Your task to perform on an android device: Open calendar and show me the fourth week of next month Image 0: 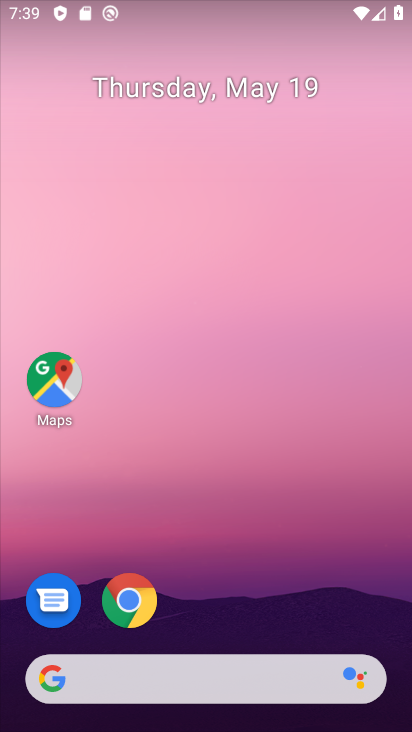
Step 0: drag from (345, 596) to (347, 152)
Your task to perform on an android device: Open calendar and show me the fourth week of next month Image 1: 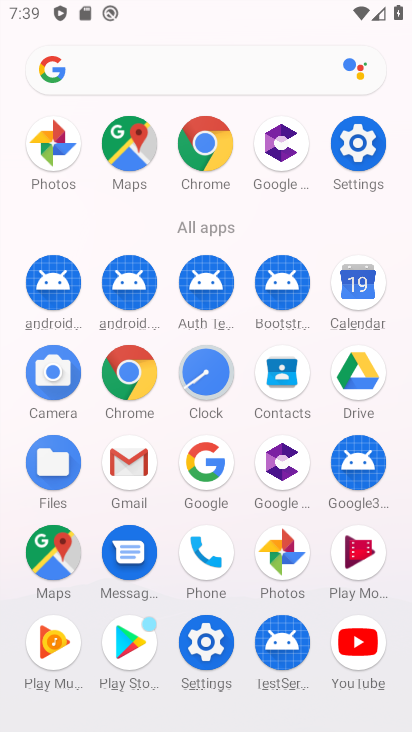
Step 1: click (351, 296)
Your task to perform on an android device: Open calendar and show me the fourth week of next month Image 2: 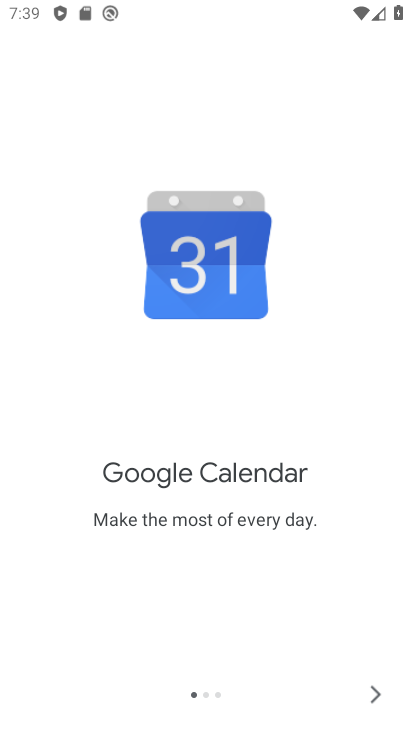
Step 2: click (373, 705)
Your task to perform on an android device: Open calendar and show me the fourth week of next month Image 3: 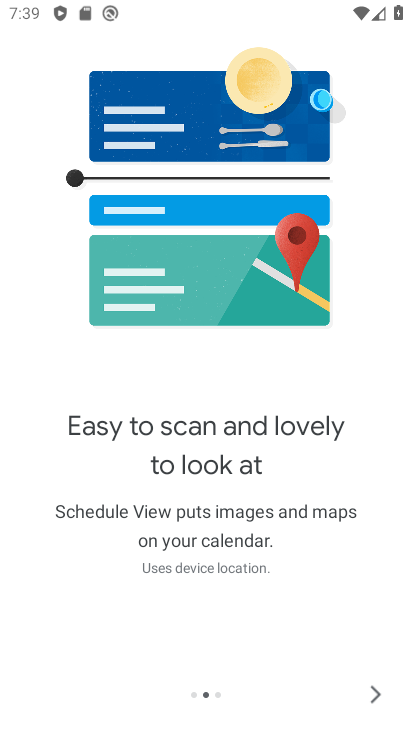
Step 3: click (373, 705)
Your task to perform on an android device: Open calendar and show me the fourth week of next month Image 4: 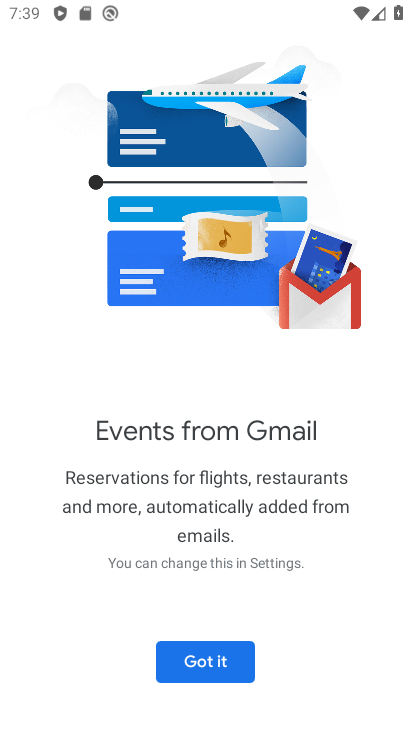
Step 4: click (204, 672)
Your task to perform on an android device: Open calendar and show me the fourth week of next month Image 5: 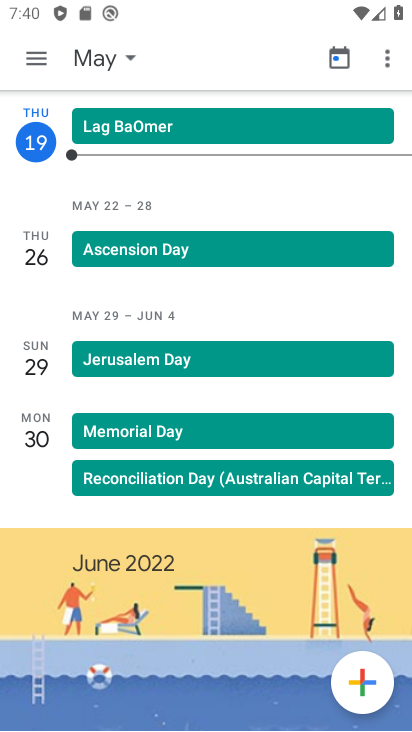
Step 5: click (133, 64)
Your task to perform on an android device: Open calendar and show me the fourth week of next month Image 6: 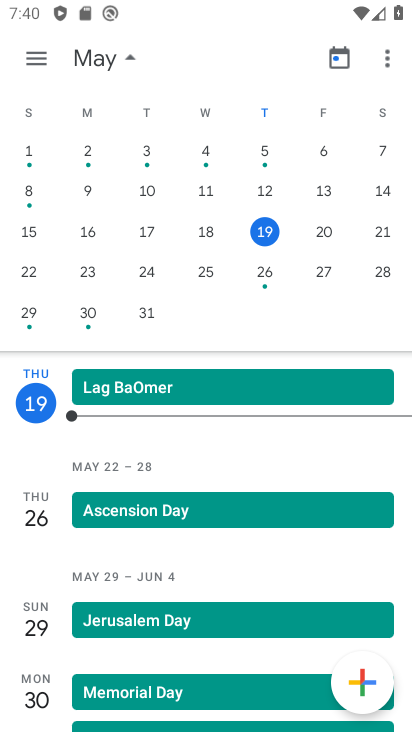
Step 6: drag from (390, 130) to (19, 132)
Your task to perform on an android device: Open calendar and show me the fourth week of next month Image 7: 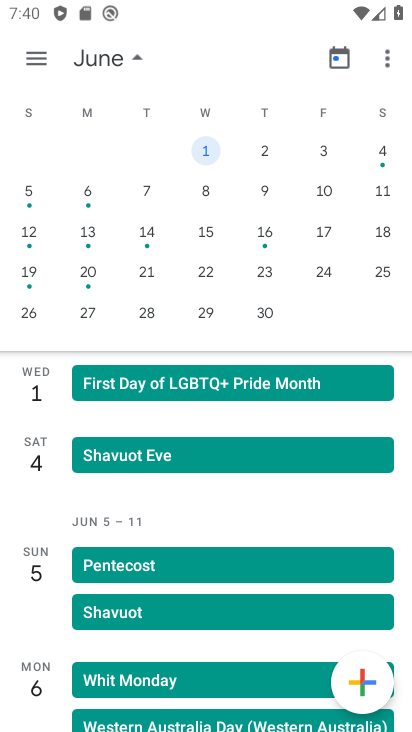
Step 7: click (90, 271)
Your task to perform on an android device: Open calendar and show me the fourth week of next month Image 8: 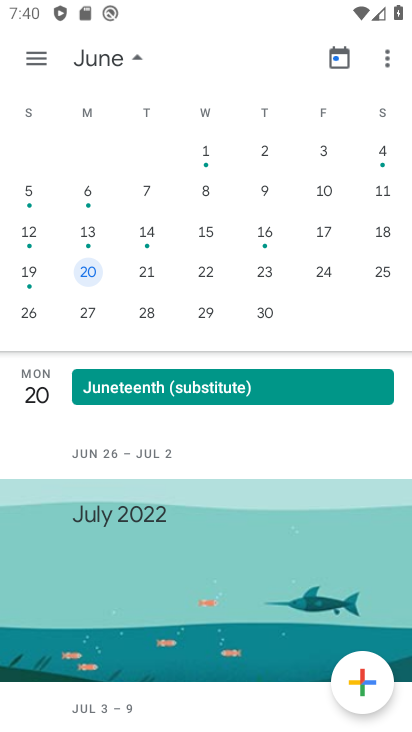
Step 8: task complete